Your task to perform on an android device: Open Google Maps and go to "Timeline" Image 0: 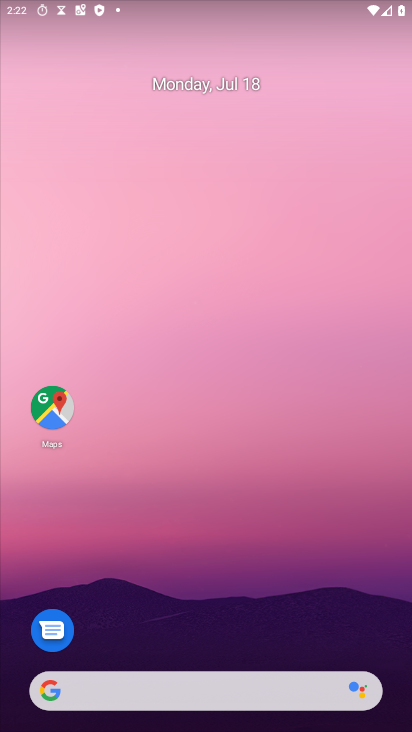
Step 0: drag from (268, 698) to (263, 27)
Your task to perform on an android device: Open Google Maps and go to "Timeline" Image 1: 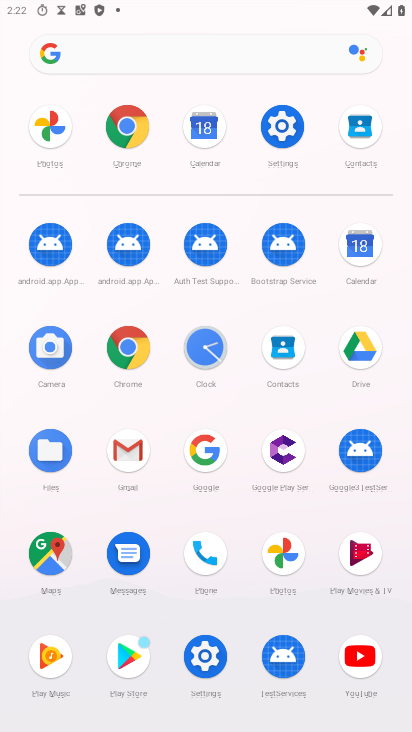
Step 1: click (41, 545)
Your task to perform on an android device: Open Google Maps and go to "Timeline" Image 2: 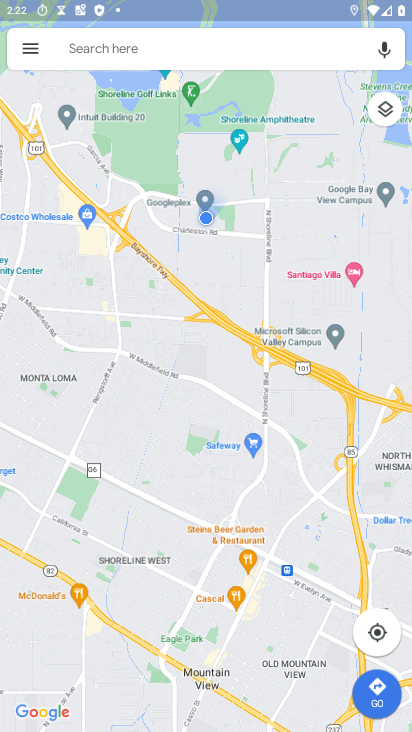
Step 2: click (23, 42)
Your task to perform on an android device: Open Google Maps and go to "Timeline" Image 3: 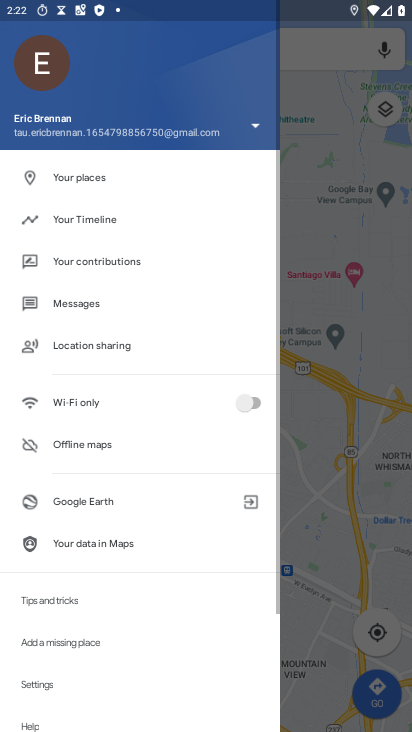
Step 3: click (90, 227)
Your task to perform on an android device: Open Google Maps and go to "Timeline" Image 4: 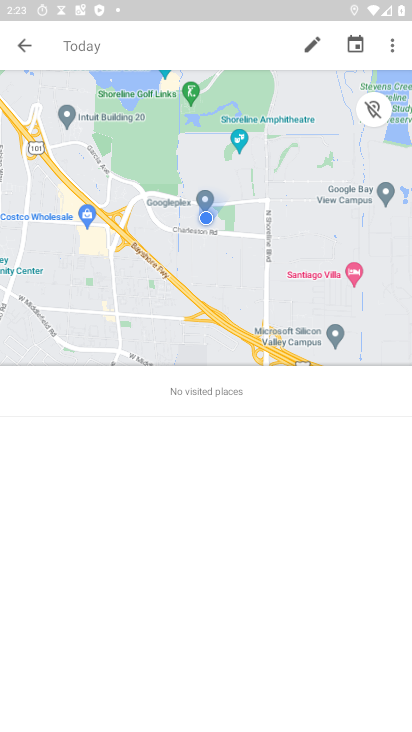
Step 4: click (390, 40)
Your task to perform on an android device: Open Google Maps and go to "Timeline" Image 5: 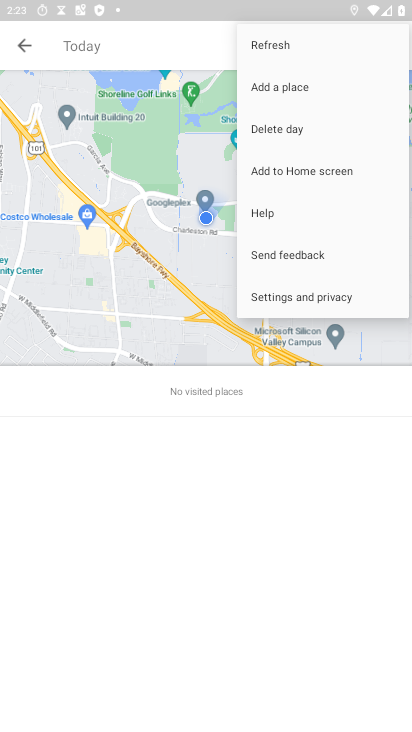
Step 5: click (313, 291)
Your task to perform on an android device: Open Google Maps and go to "Timeline" Image 6: 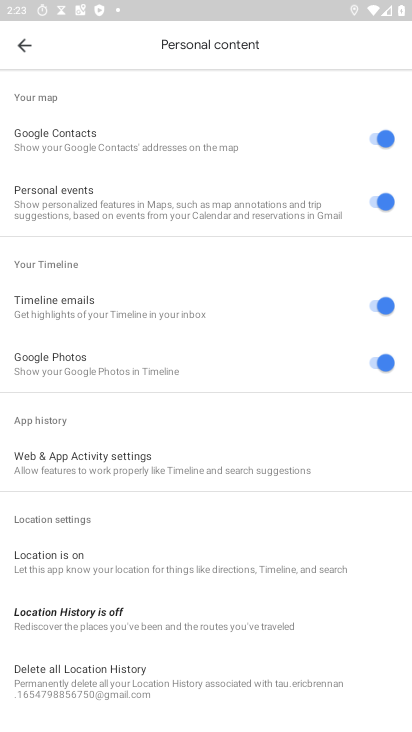
Step 6: task complete